Your task to perform on an android device: Show me productivity apps on the Play Store Image 0: 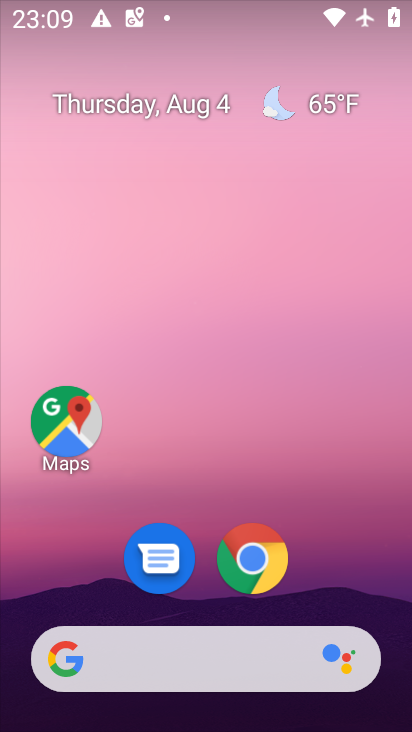
Step 0: drag from (328, 530) to (280, 102)
Your task to perform on an android device: Show me productivity apps on the Play Store Image 1: 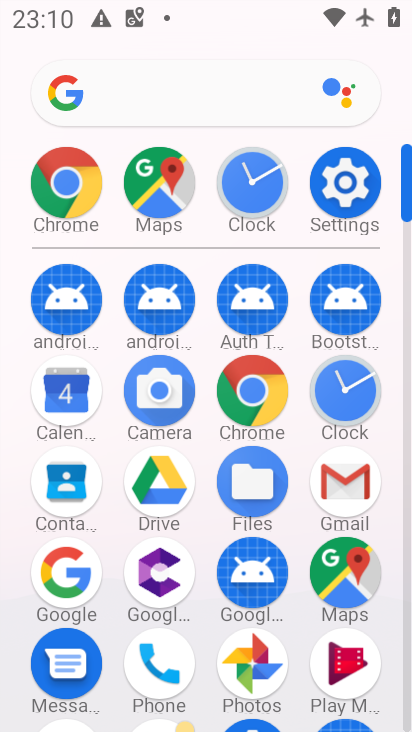
Step 1: drag from (292, 627) to (255, 285)
Your task to perform on an android device: Show me productivity apps on the Play Store Image 2: 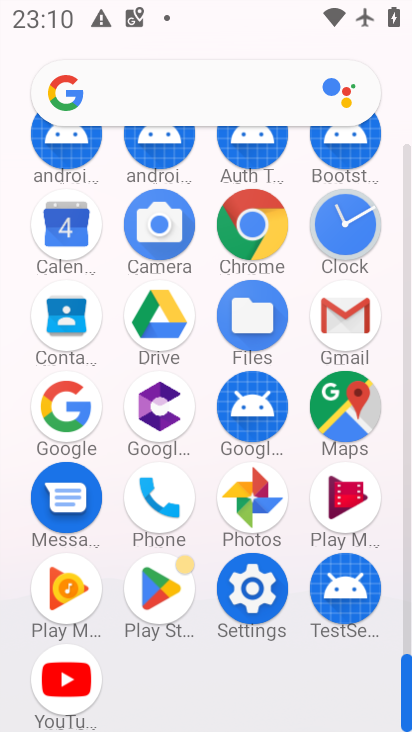
Step 2: click (148, 599)
Your task to perform on an android device: Show me productivity apps on the Play Store Image 3: 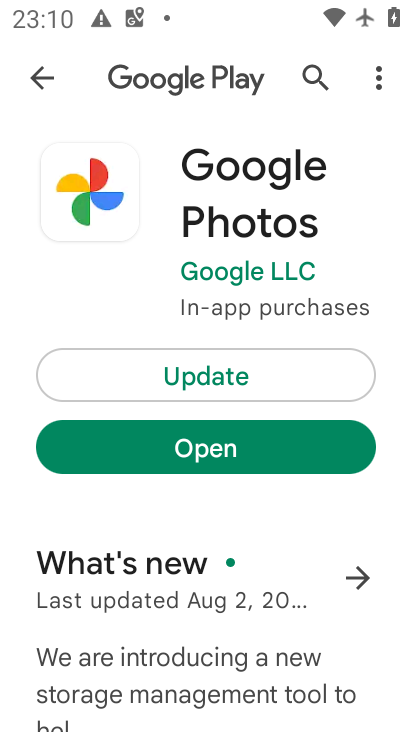
Step 3: click (49, 69)
Your task to perform on an android device: Show me productivity apps on the Play Store Image 4: 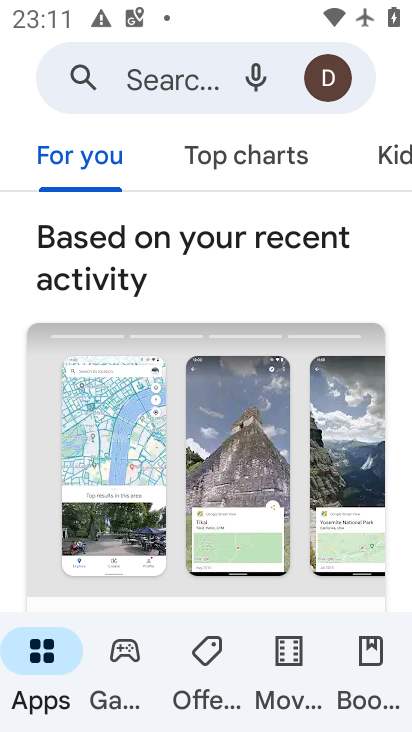
Step 4: task complete